Your task to perform on an android device: turn off javascript in the chrome app Image 0: 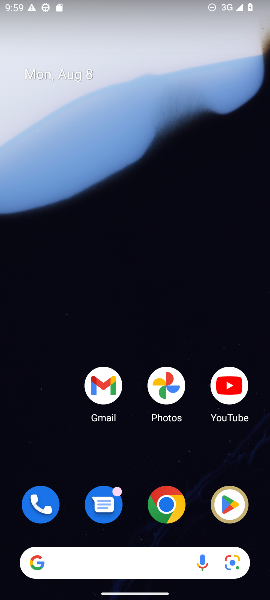
Step 0: click (160, 511)
Your task to perform on an android device: turn off javascript in the chrome app Image 1: 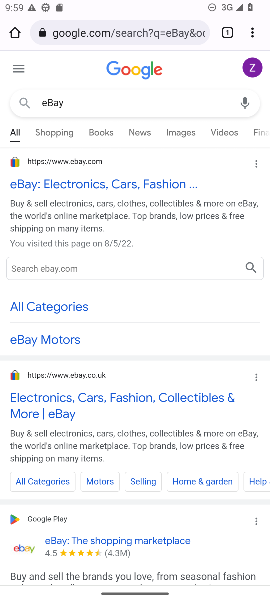
Step 1: click (250, 31)
Your task to perform on an android device: turn off javascript in the chrome app Image 2: 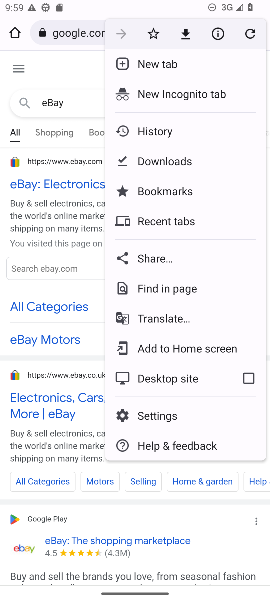
Step 2: click (157, 417)
Your task to perform on an android device: turn off javascript in the chrome app Image 3: 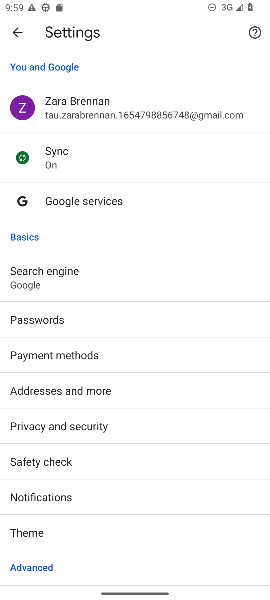
Step 3: drag from (110, 243) to (113, 189)
Your task to perform on an android device: turn off javascript in the chrome app Image 4: 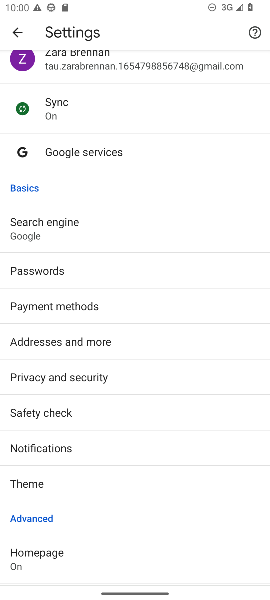
Step 4: drag from (90, 430) to (100, 309)
Your task to perform on an android device: turn off javascript in the chrome app Image 5: 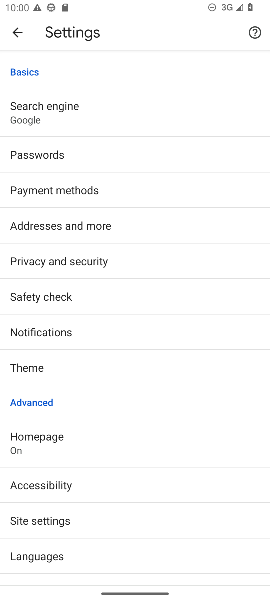
Step 5: click (44, 517)
Your task to perform on an android device: turn off javascript in the chrome app Image 6: 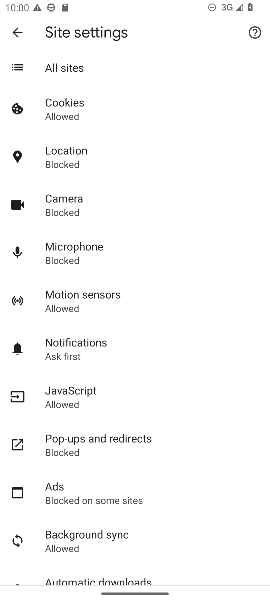
Step 6: click (86, 401)
Your task to perform on an android device: turn off javascript in the chrome app Image 7: 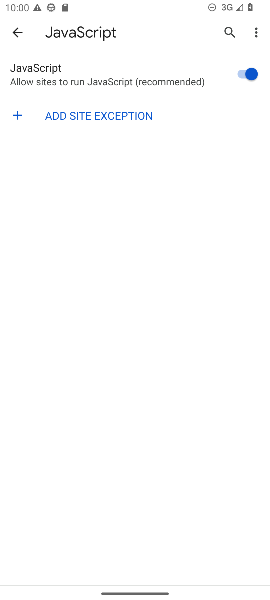
Step 7: click (228, 74)
Your task to perform on an android device: turn off javascript in the chrome app Image 8: 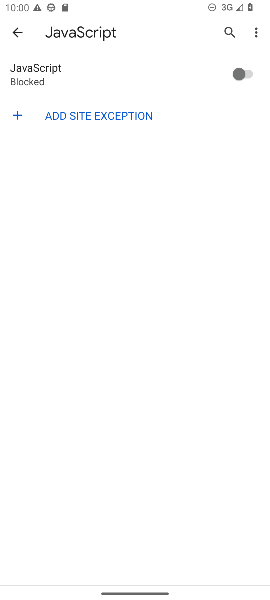
Step 8: task complete